Your task to perform on an android device: Is it going to rain this weekend? Image 0: 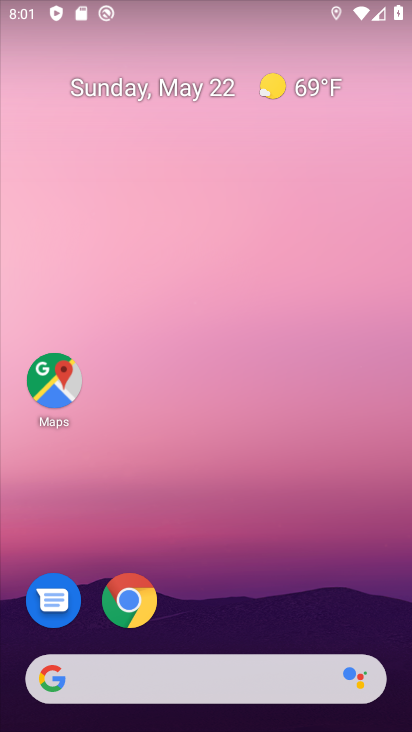
Step 0: drag from (229, 595) to (317, 162)
Your task to perform on an android device: Is it going to rain this weekend? Image 1: 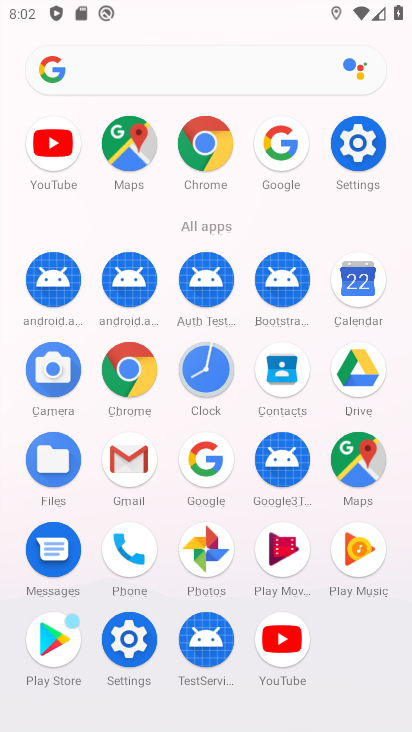
Step 1: click (206, 452)
Your task to perform on an android device: Is it going to rain this weekend? Image 2: 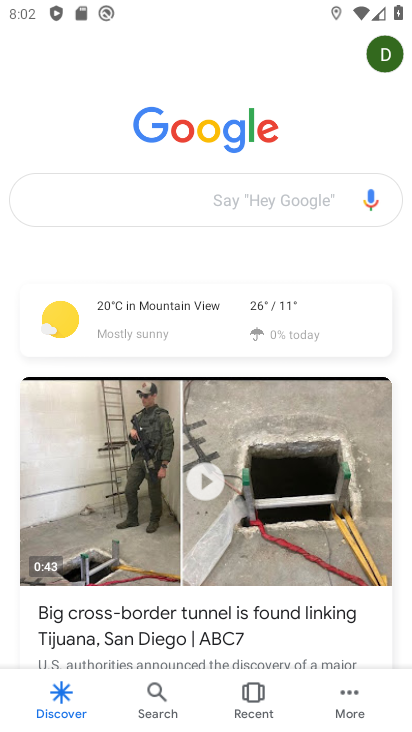
Step 2: click (221, 214)
Your task to perform on an android device: Is it going to rain this weekend? Image 3: 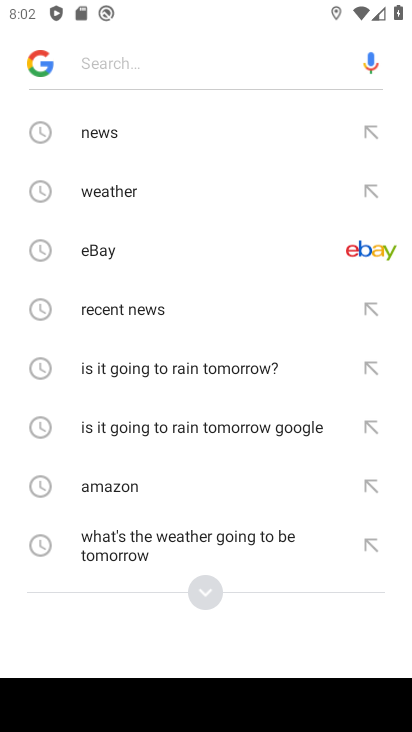
Step 3: type "going to rain this weekend"
Your task to perform on an android device: Is it going to rain this weekend? Image 4: 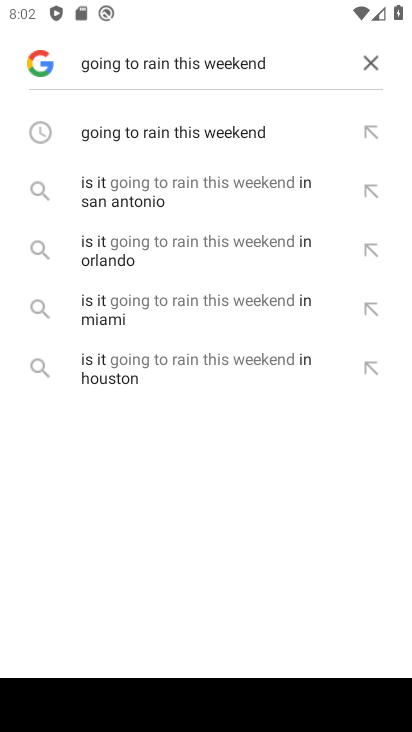
Step 4: click (258, 140)
Your task to perform on an android device: Is it going to rain this weekend? Image 5: 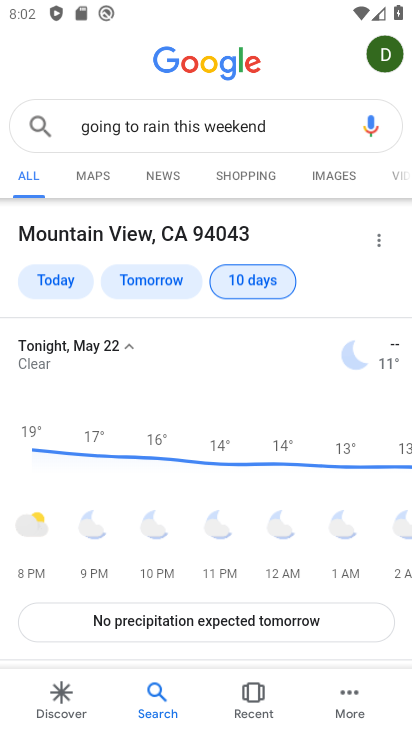
Step 5: task complete